Your task to perform on an android device: Open sound settings Image 0: 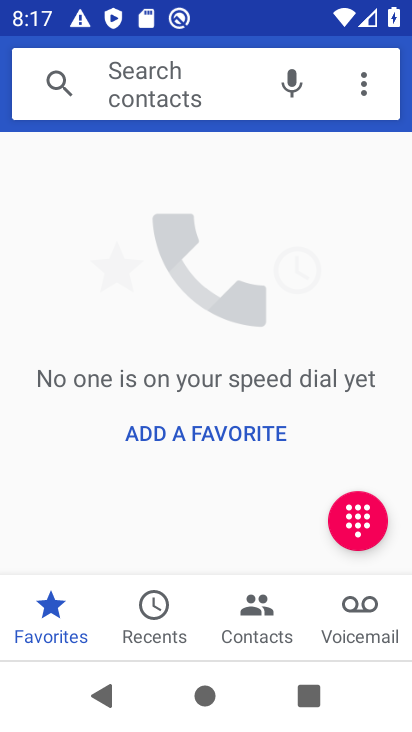
Step 0: press home button
Your task to perform on an android device: Open sound settings Image 1: 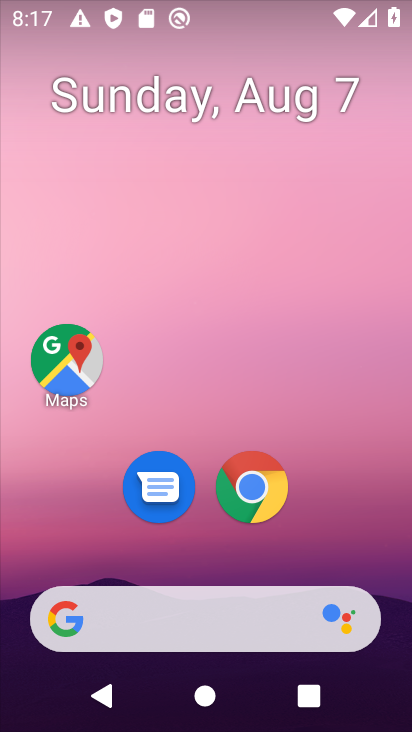
Step 1: drag from (200, 547) to (166, 34)
Your task to perform on an android device: Open sound settings Image 2: 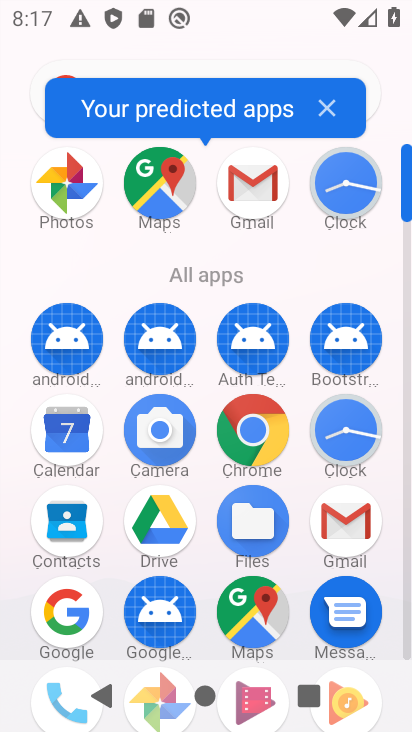
Step 2: drag from (202, 547) to (190, 144)
Your task to perform on an android device: Open sound settings Image 3: 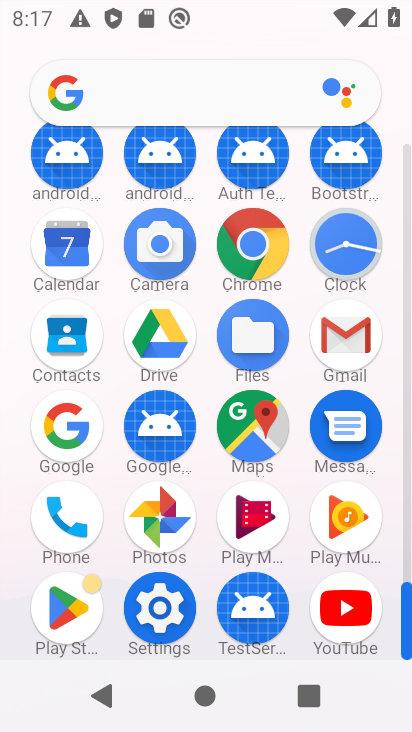
Step 3: click (142, 621)
Your task to perform on an android device: Open sound settings Image 4: 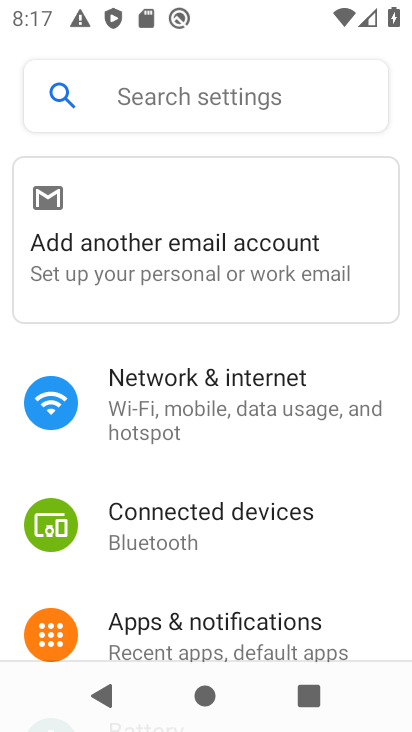
Step 4: drag from (183, 621) to (232, 209)
Your task to perform on an android device: Open sound settings Image 5: 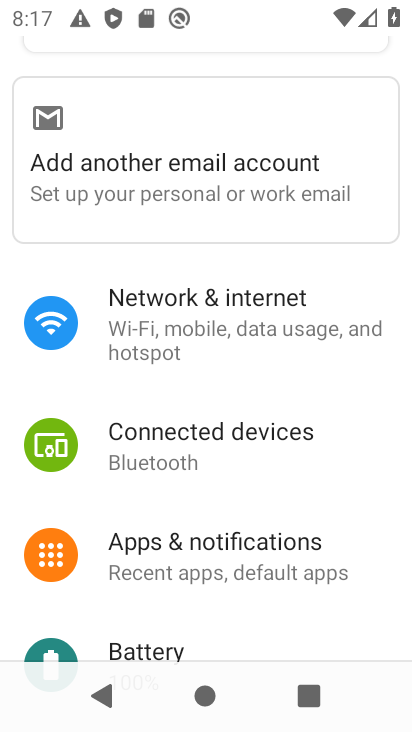
Step 5: drag from (241, 513) to (212, 189)
Your task to perform on an android device: Open sound settings Image 6: 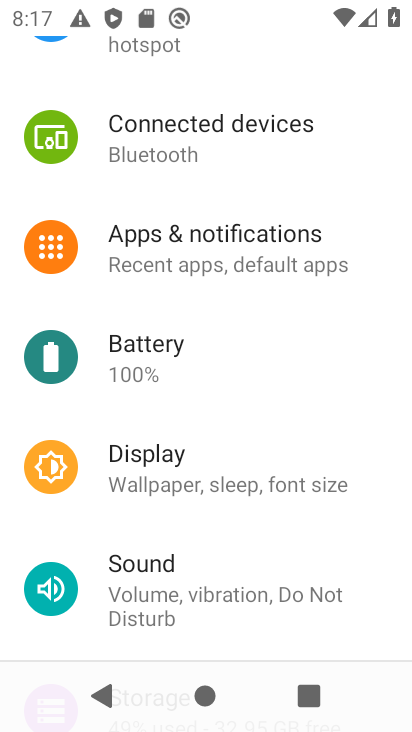
Step 6: click (292, 611)
Your task to perform on an android device: Open sound settings Image 7: 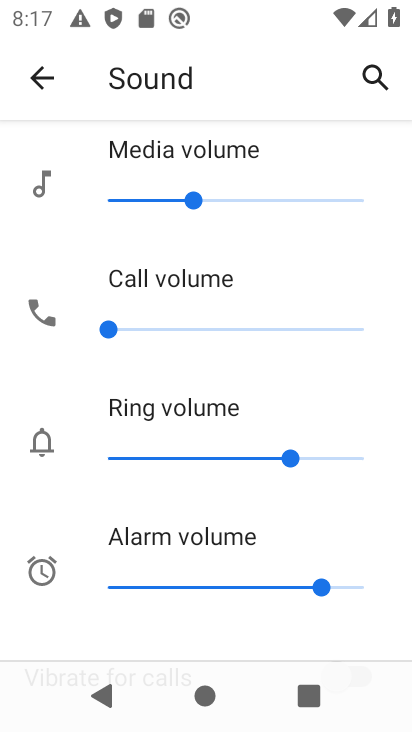
Step 7: task complete